Your task to perform on an android device: Open Chrome and go to the settings page Image 0: 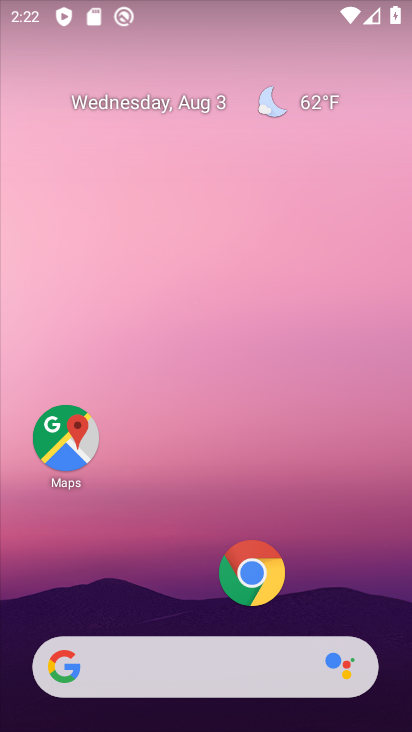
Step 0: click (247, 569)
Your task to perform on an android device: Open Chrome and go to the settings page Image 1: 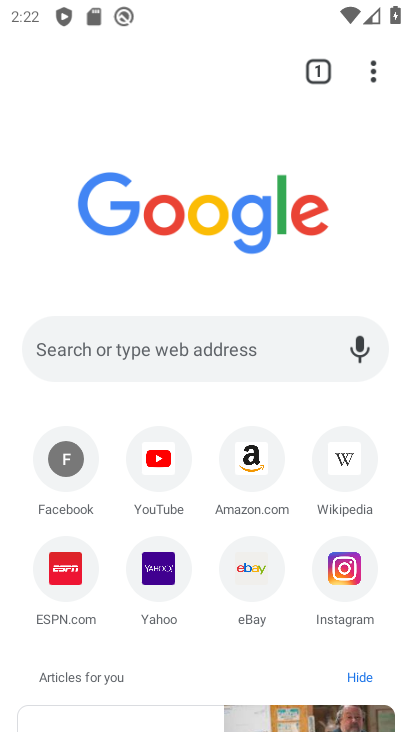
Step 1: click (363, 61)
Your task to perform on an android device: Open Chrome and go to the settings page Image 2: 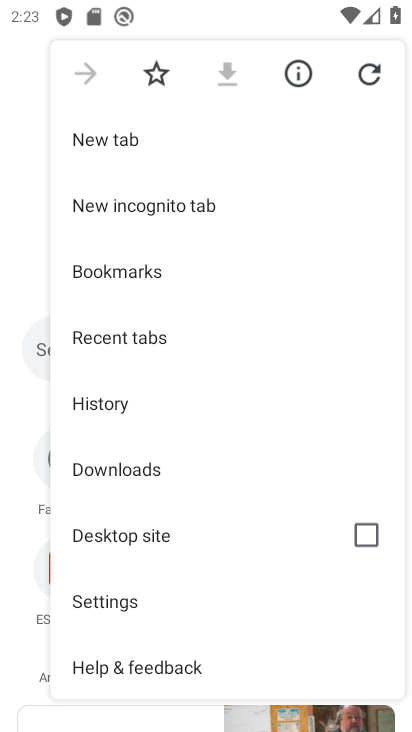
Step 2: click (136, 609)
Your task to perform on an android device: Open Chrome and go to the settings page Image 3: 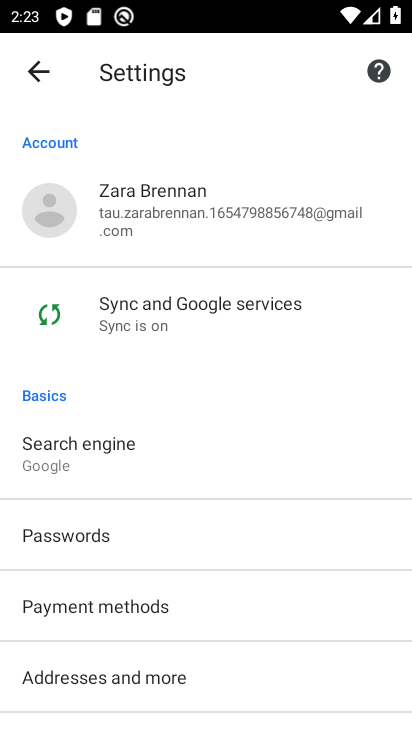
Step 3: task complete